Your task to perform on an android device: allow notifications from all sites in the chrome app Image 0: 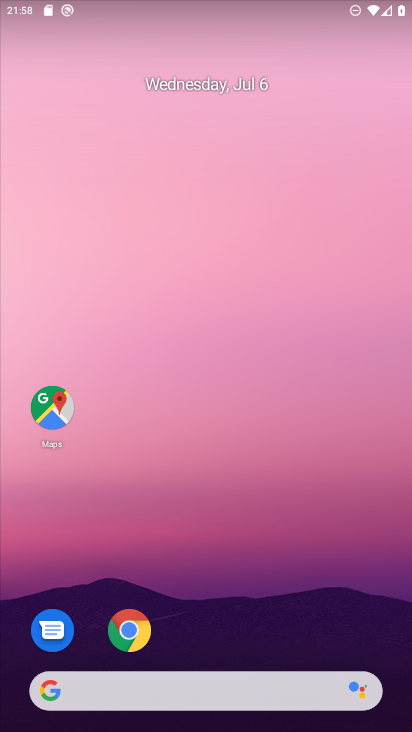
Step 0: drag from (242, 646) to (293, 93)
Your task to perform on an android device: allow notifications from all sites in the chrome app Image 1: 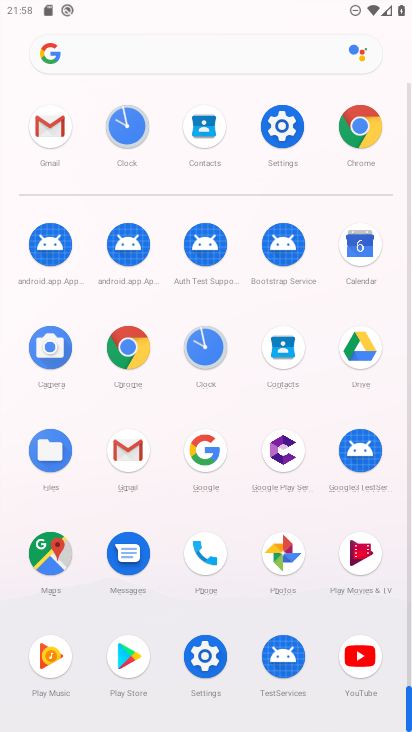
Step 1: click (358, 112)
Your task to perform on an android device: allow notifications from all sites in the chrome app Image 2: 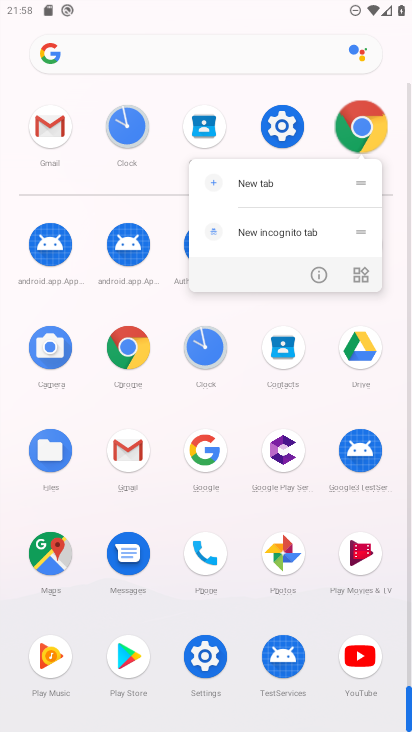
Step 2: click (358, 112)
Your task to perform on an android device: allow notifications from all sites in the chrome app Image 3: 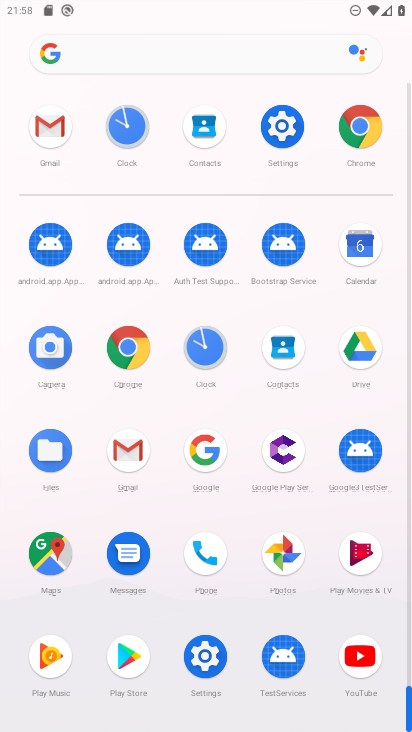
Step 3: click (345, 121)
Your task to perform on an android device: allow notifications from all sites in the chrome app Image 4: 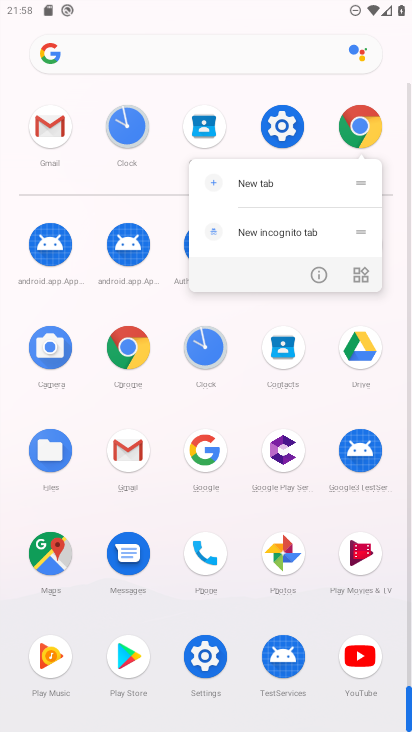
Step 4: click (318, 273)
Your task to perform on an android device: allow notifications from all sites in the chrome app Image 5: 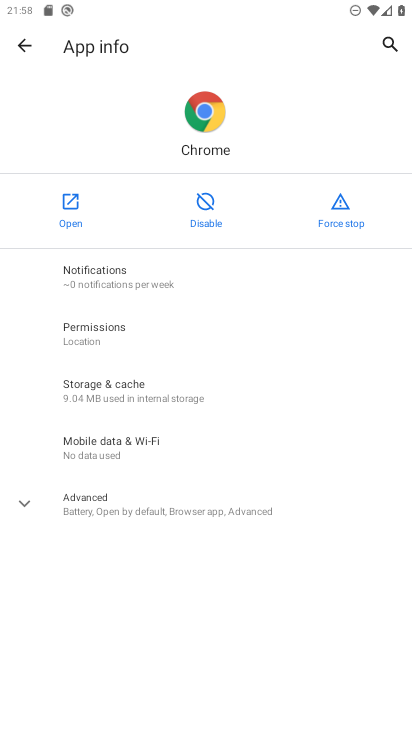
Step 5: click (193, 275)
Your task to perform on an android device: allow notifications from all sites in the chrome app Image 6: 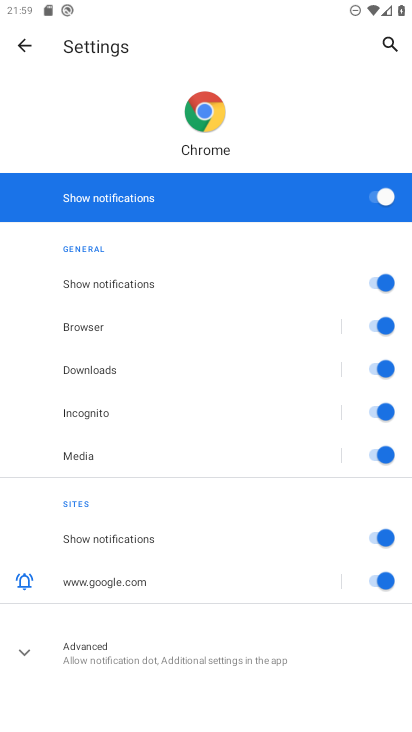
Step 6: task complete